Your task to perform on an android device: turn off javascript in the chrome app Image 0: 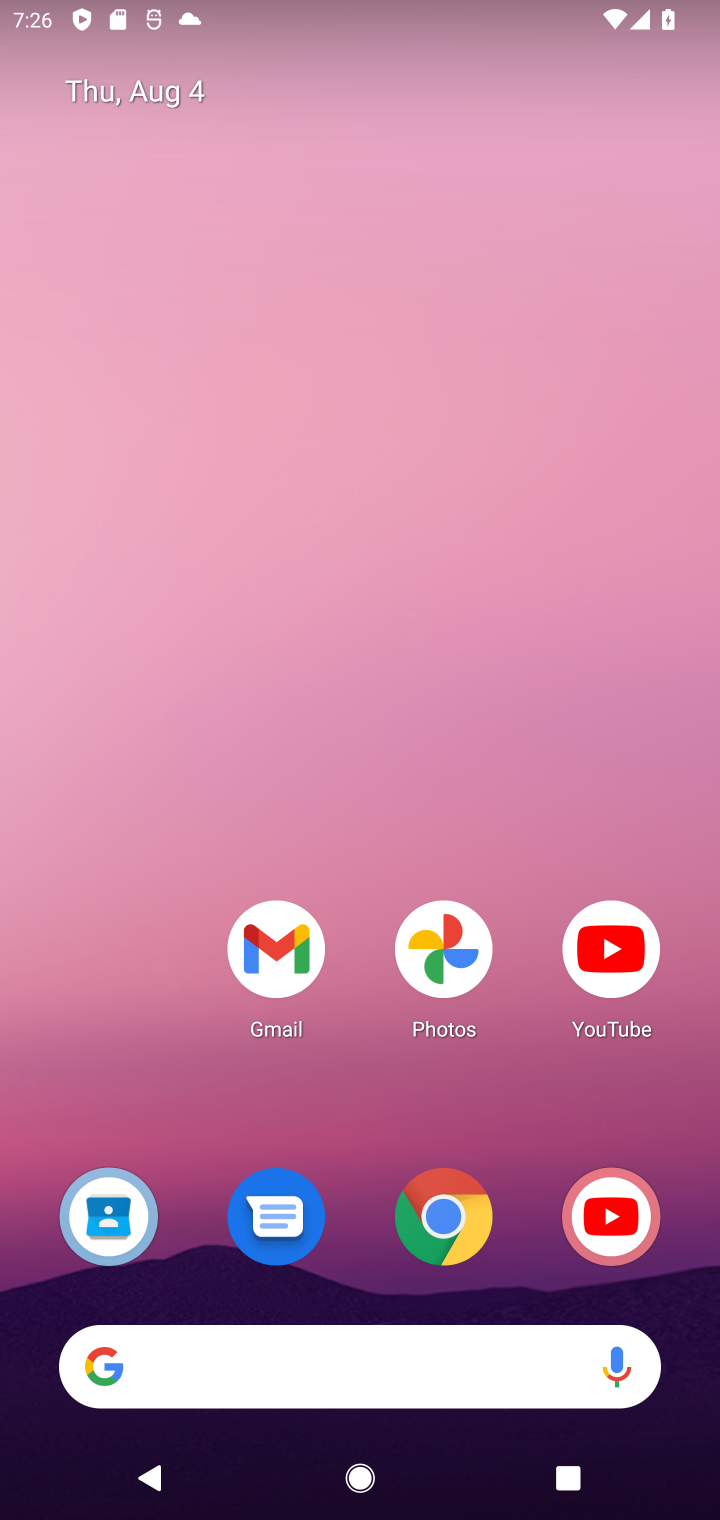
Step 0: click (427, 1229)
Your task to perform on an android device: turn off javascript in the chrome app Image 1: 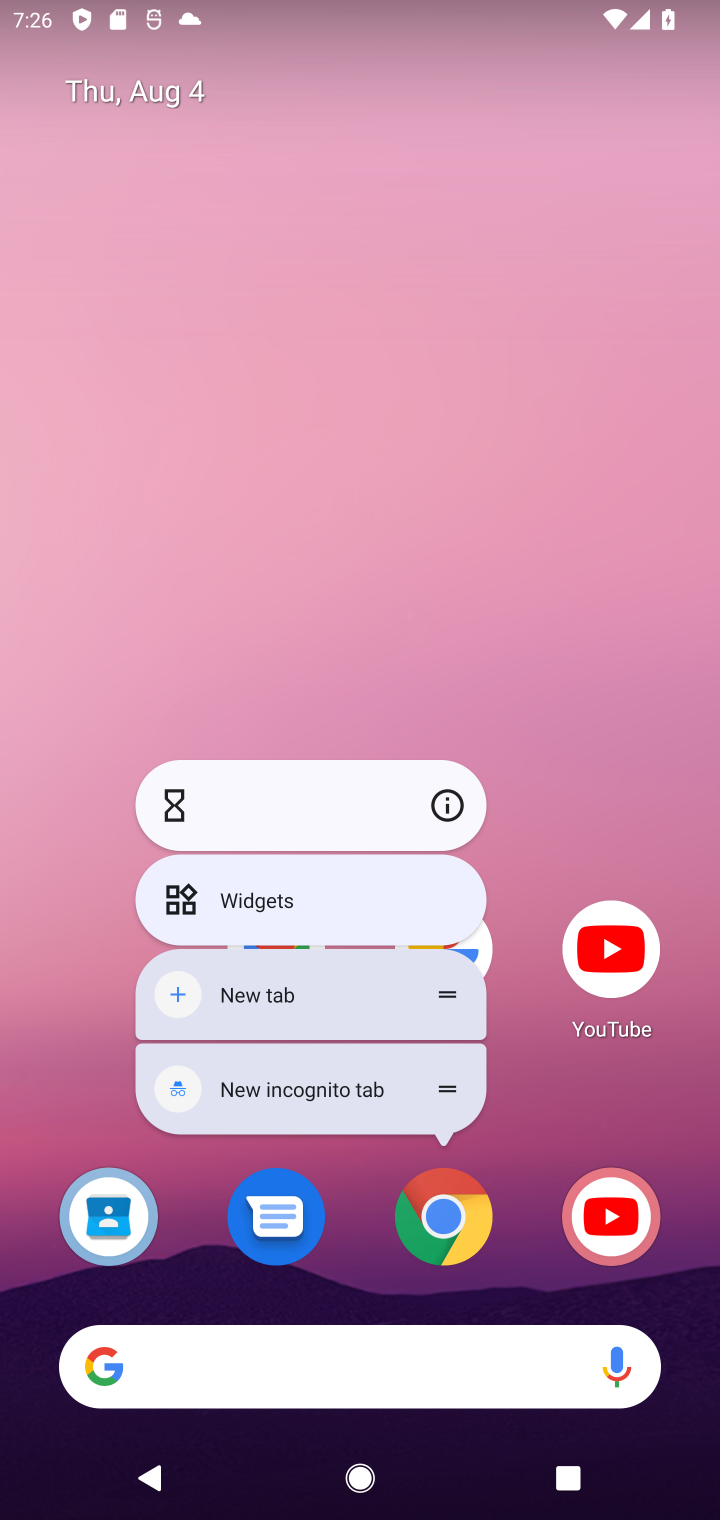
Step 1: click (429, 1228)
Your task to perform on an android device: turn off javascript in the chrome app Image 2: 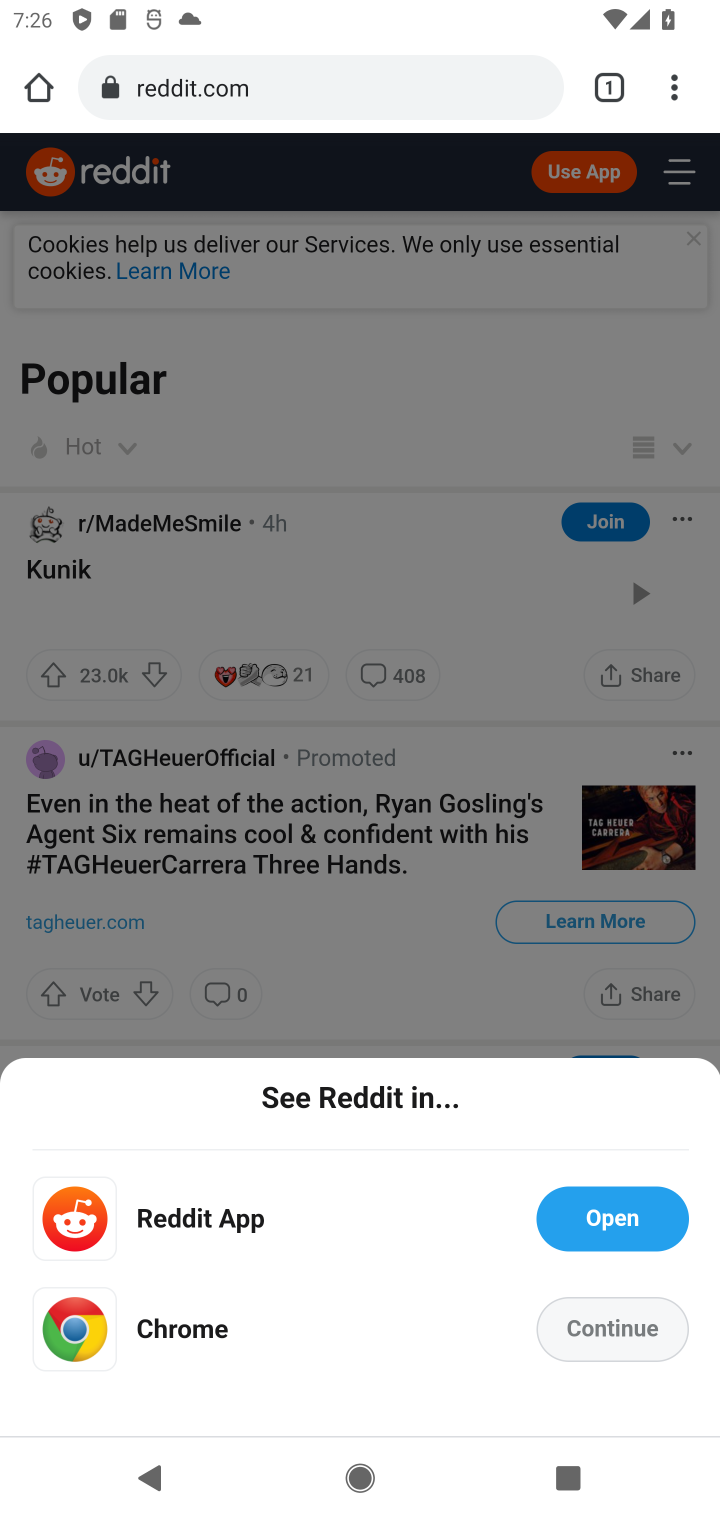
Step 2: click (671, 99)
Your task to perform on an android device: turn off javascript in the chrome app Image 3: 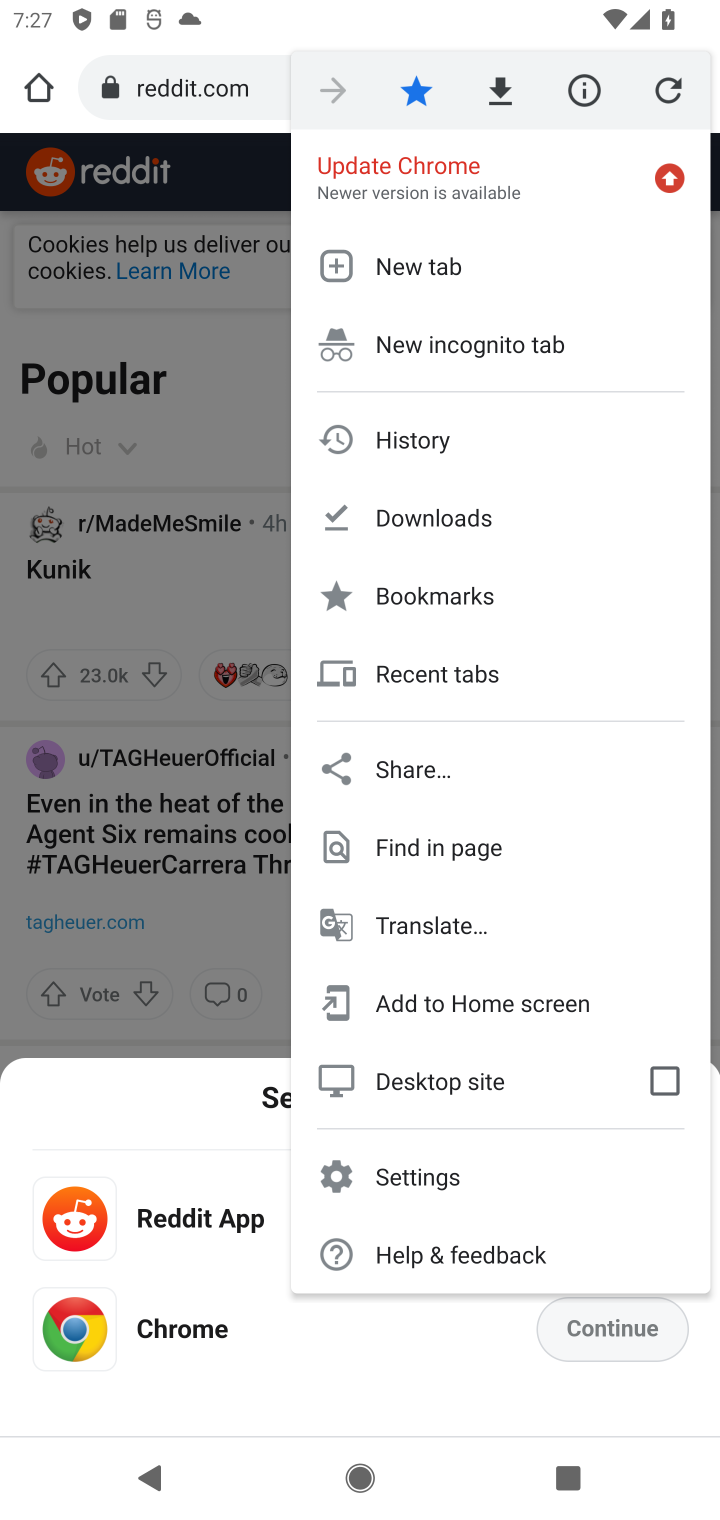
Step 3: click (415, 1169)
Your task to perform on an android device: turn off javascript in the chrome app Image 4: 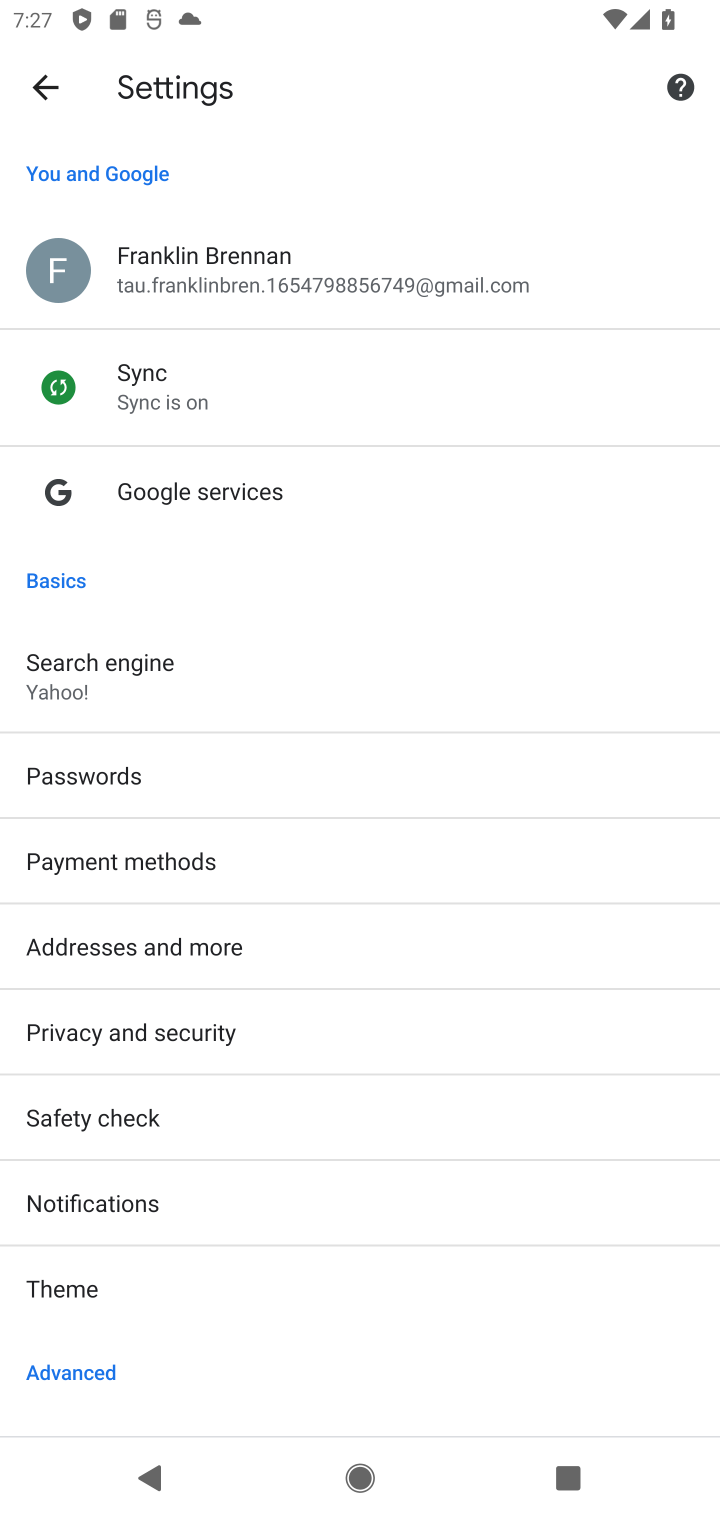
Step 4: drag from (78, 1331) to (131, 814)
Your task to perform on an android device: turn off javascript in the chrome app Image 5: 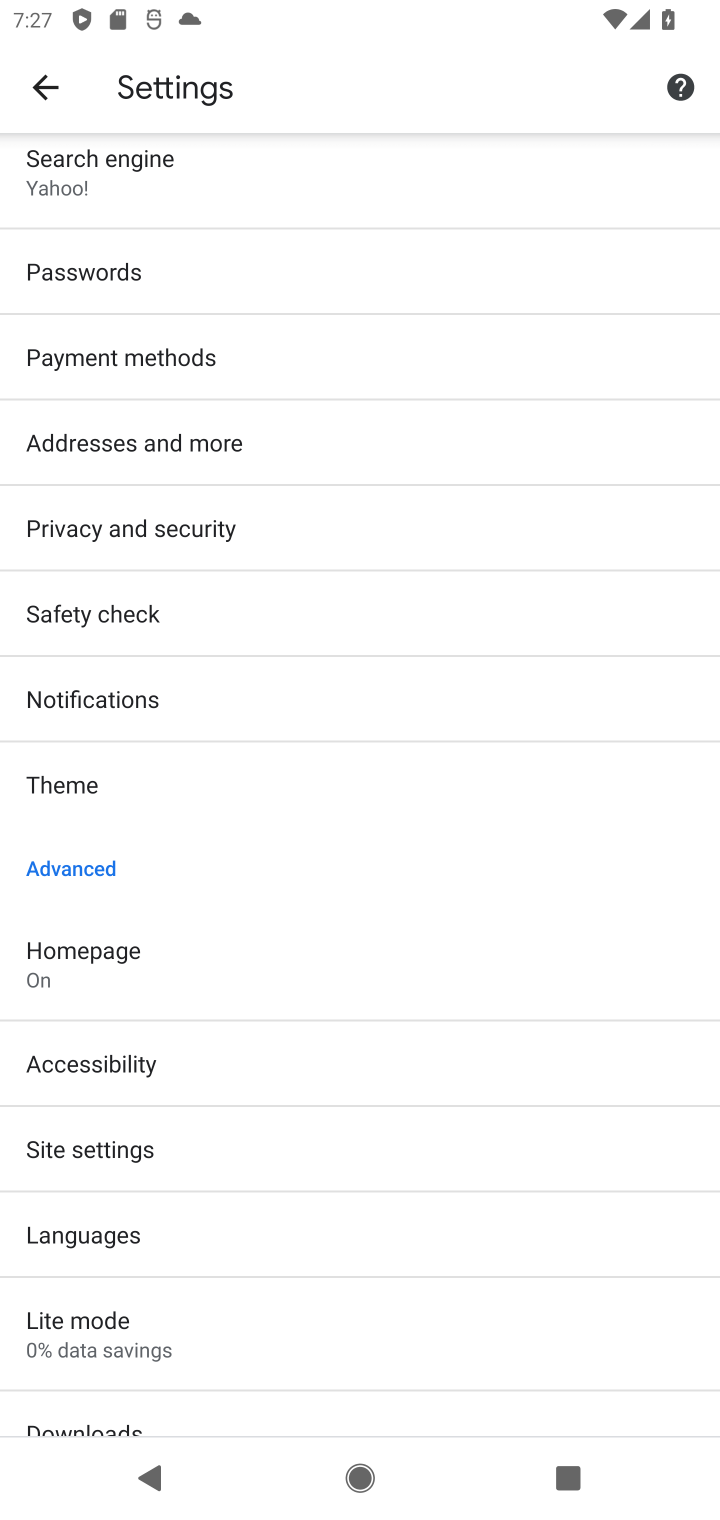
Step 5: click (86, 1140)
Your task to perform on an android device: turn off javascript in the chrome app Image 6: 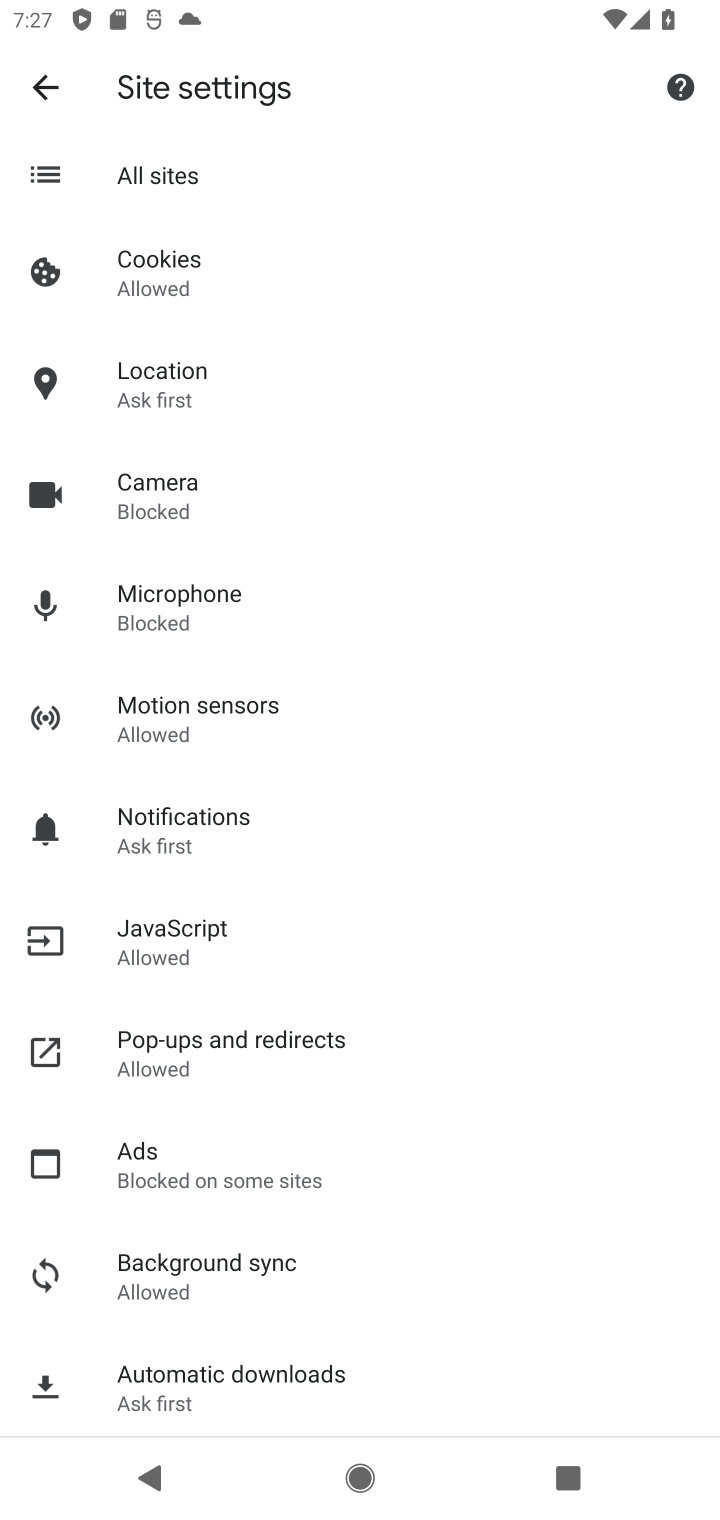
Step 6: click (148, 951)
Your task to perform on an android device: turn off javascript in the chrome app Image 7: 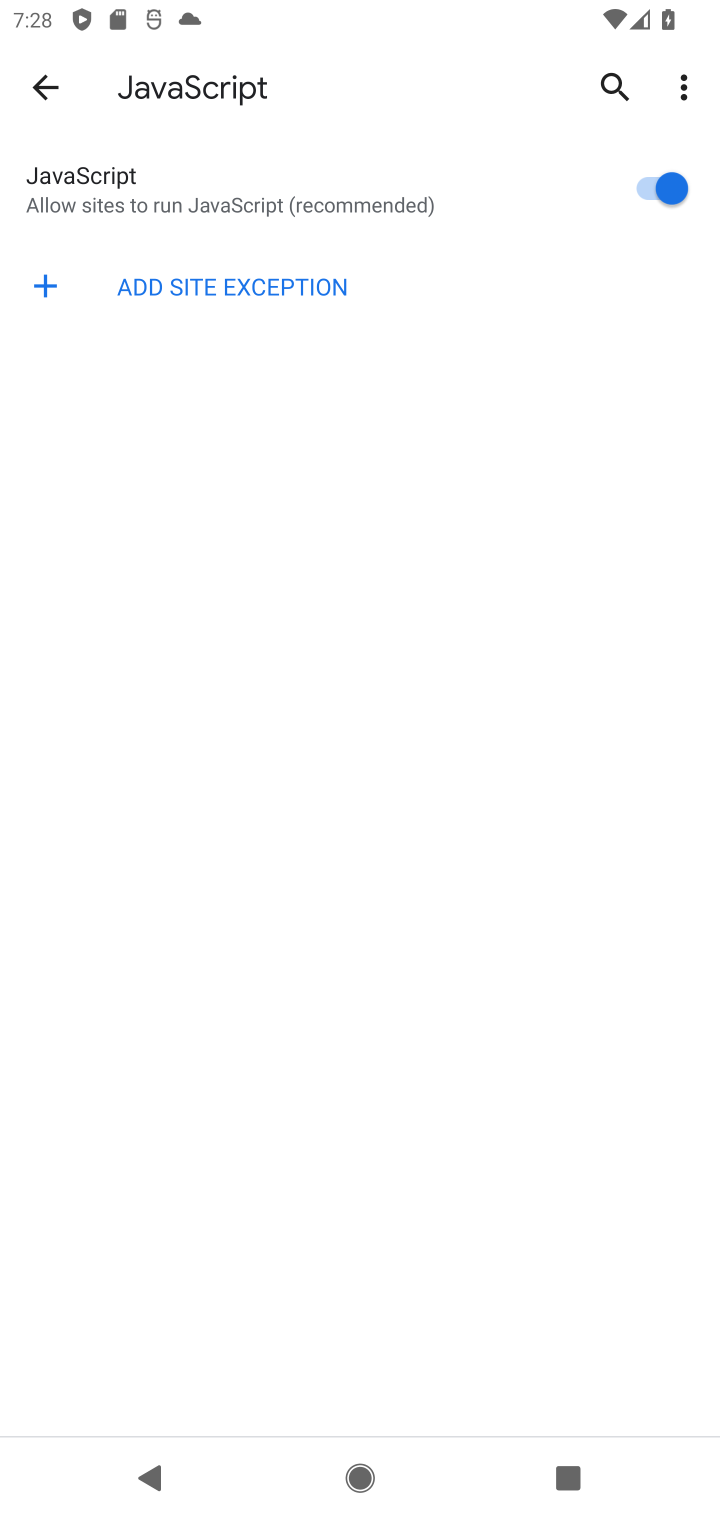
Step 7: click (665, 188)
Your task to perform on an android device: turn off javascript in the chrome app Image 8: 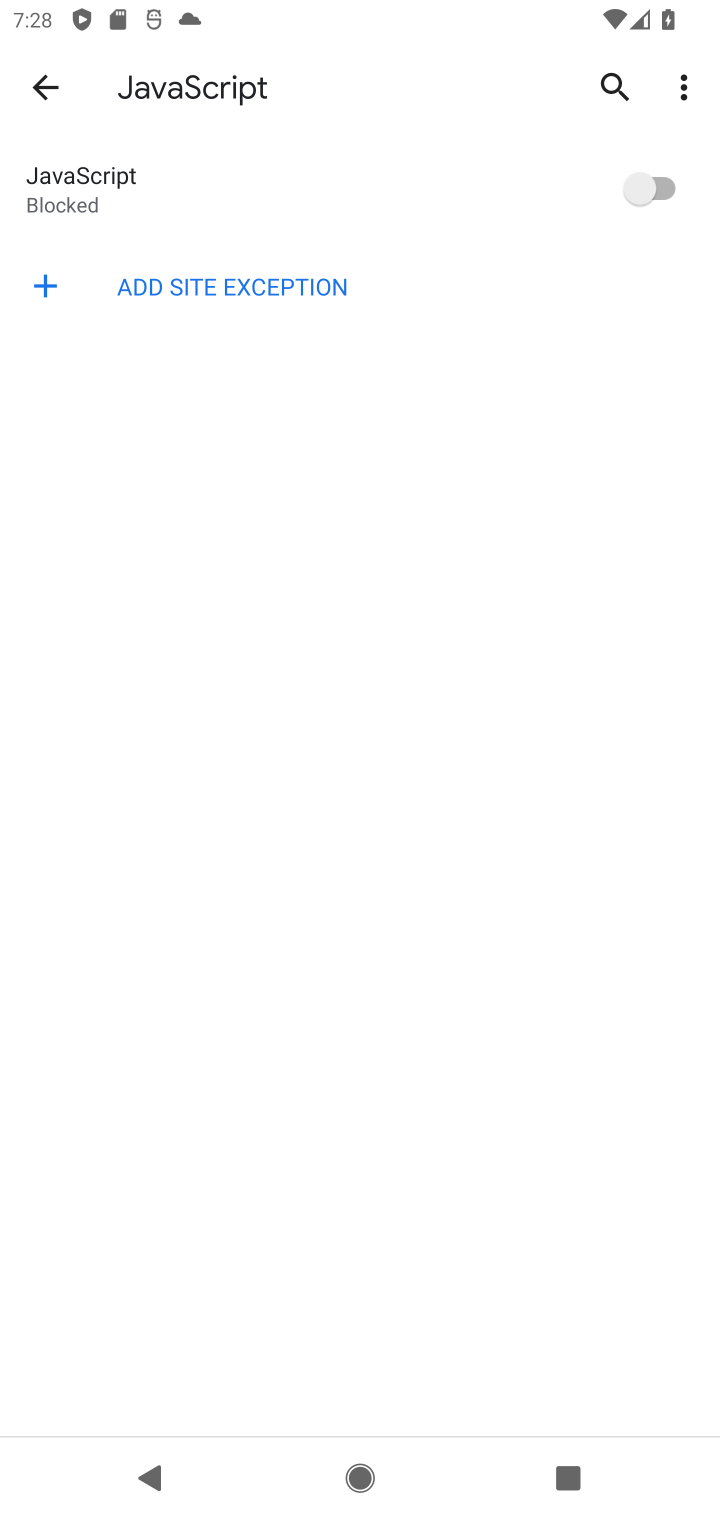
Step 8: task complete